Your task to perform on an android device: refresh tabs in the chrome app Image 0: 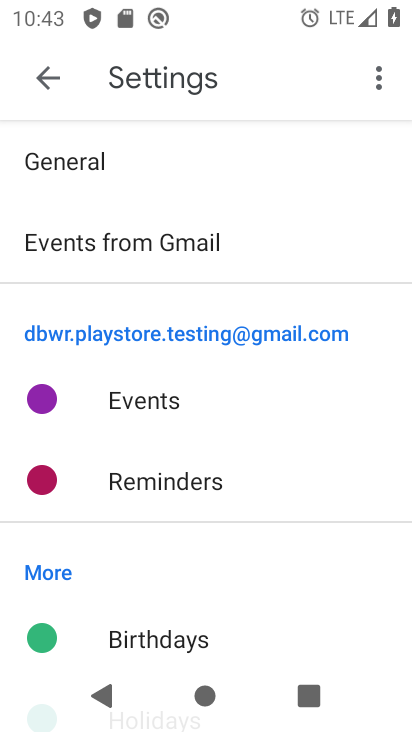
Step 0: press home button
Your task to perform on an android device: refresh tabs in the chrome app Image 1: 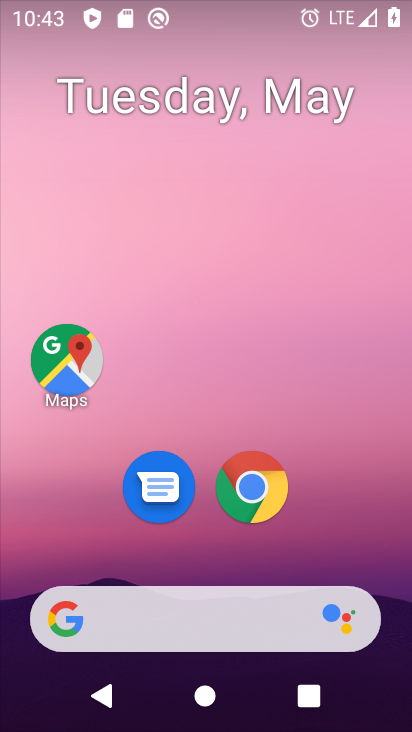
Step 1: click (262, 485)
Your task to perform on an android device: refresh tabs in the chrome app Image 2: 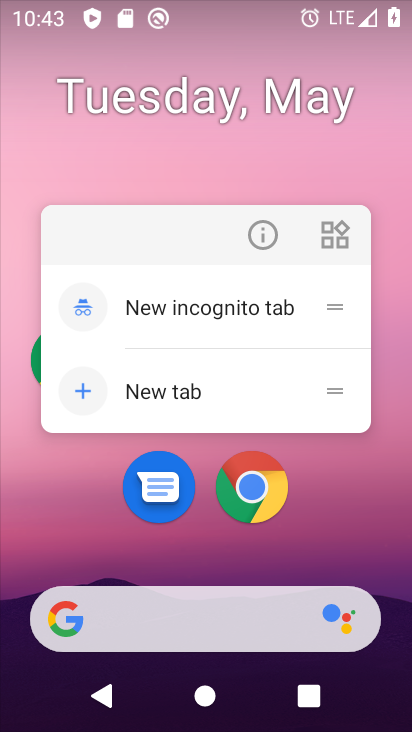
Step 2: click (264, 242)
Your task to perform on an android device: refresh tabs in the chrome app Image 3: 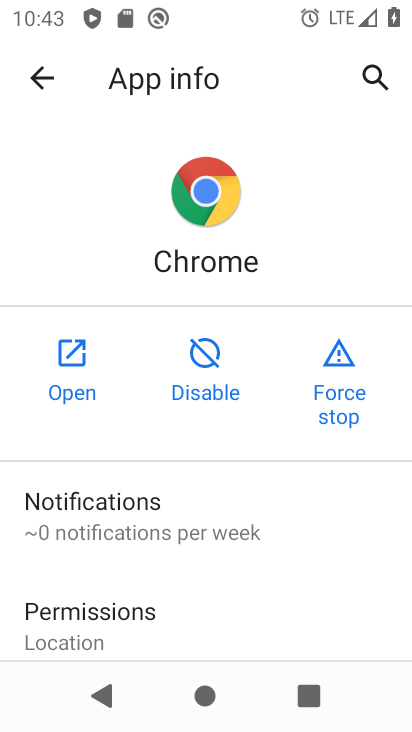
Step 3: click (42, 378)
Your task to perform on an android device: refresh tabs in the chrome app Image 4: 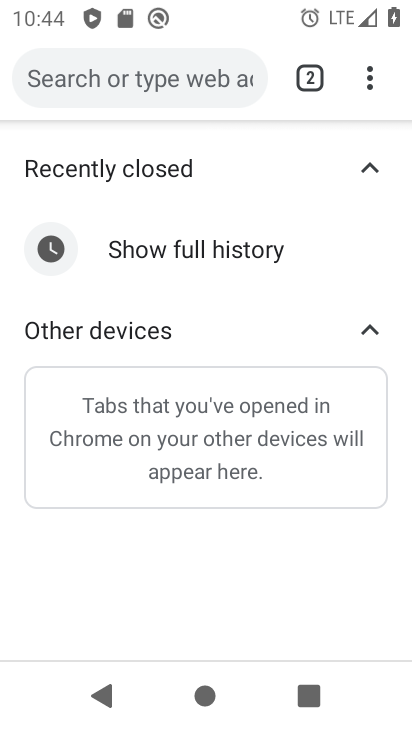
Step 4: drag from (201, 537) to (282, 304)
Your task to perform on an android device: refresh tabs in the chrome app Image 5: 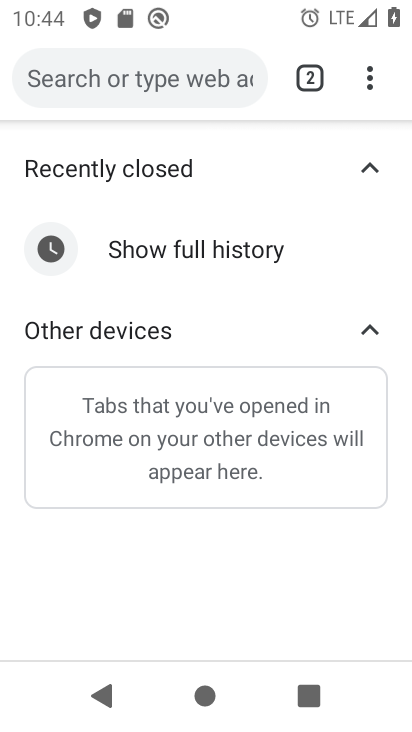
Step 5: click (366, 68)
Your task to perform on an android device: refresh tabs in the chrome app Image 6: 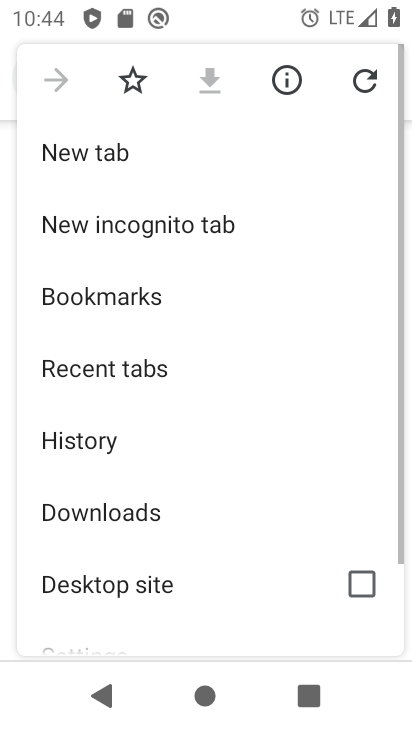
Step 6: click (375, 99)
Your task to perform on an android device: refresh tabs in the chrome app Image 7: 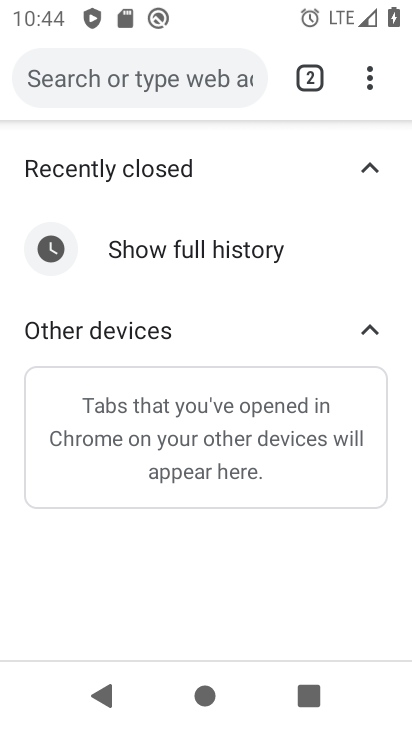
Step 7: click (380, 70)
Your task to perform on an android device: refresh tabs in the chrome app Image 8: 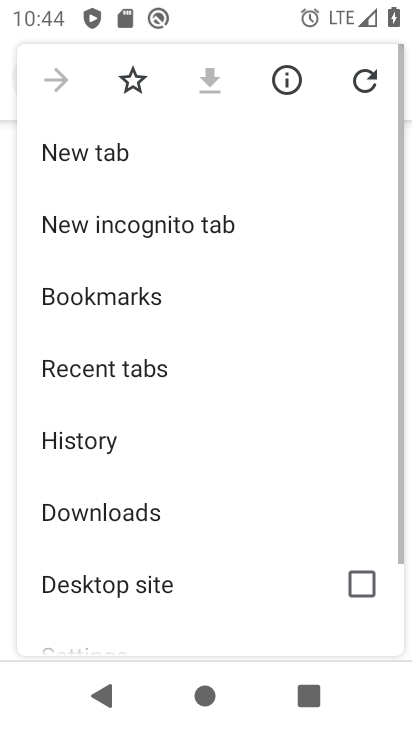
Step 8: click (375, 70)
Your task to perform on an android device: refresh tabs in the chrome app Image 9: 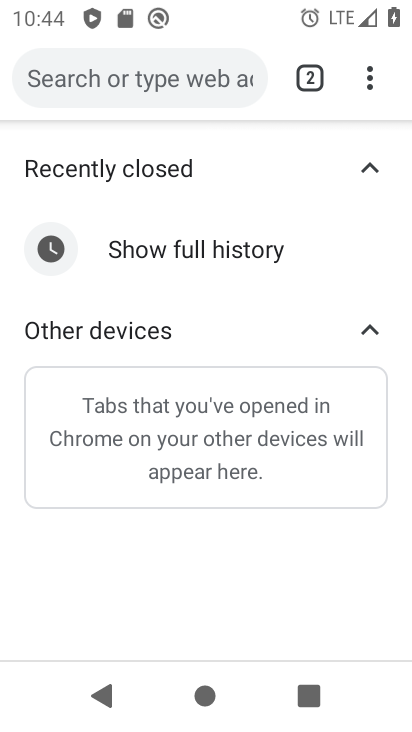
Step 9: task complete